Your task to perform on an android device: Open Yahoo.com Image 0: 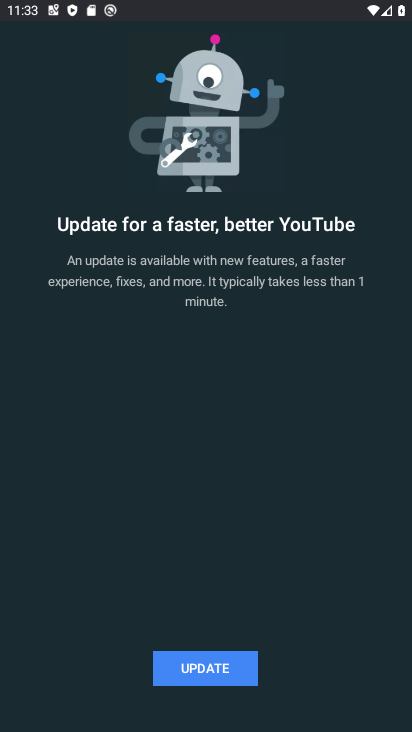
Step 0: press home button
Your task to perform on an android device: Open Yahoo.com Image 1: 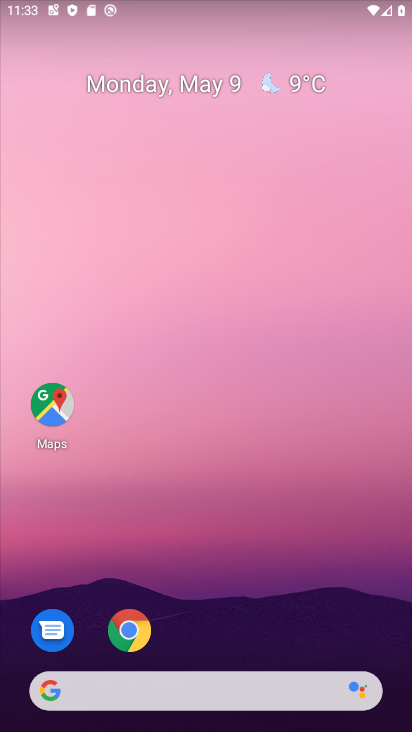
Step 1: click (132, 631)
Your task to perform on an android device: Open Yahoo.com Image 2: 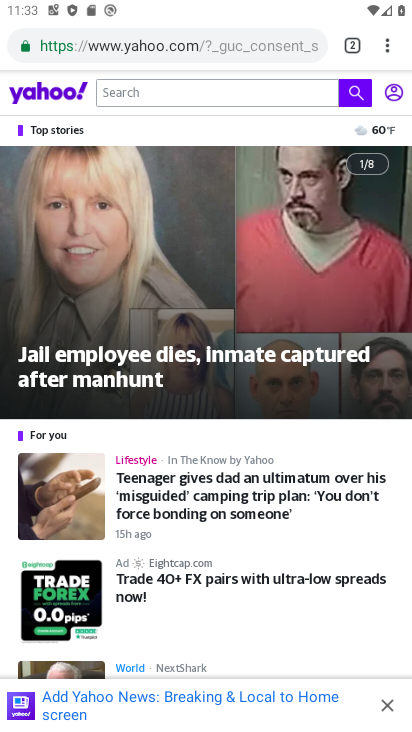
Step 2: task complete